Your task to perform on an android device: change your default location settings in chrome Image 0: 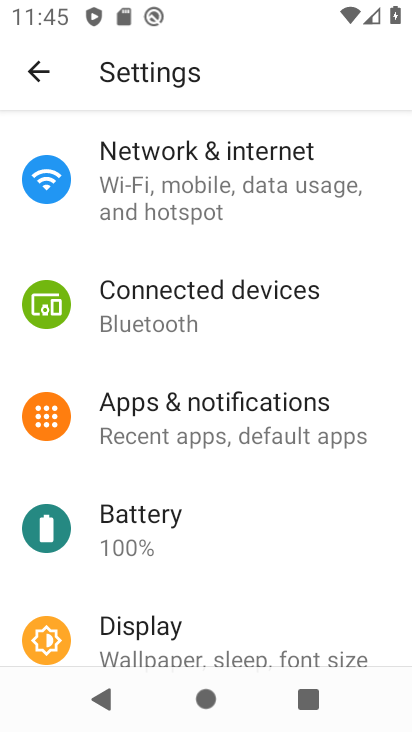
Step 0: press home button
Your task to perform on an android device: change your default location settings in chrome Image 1: 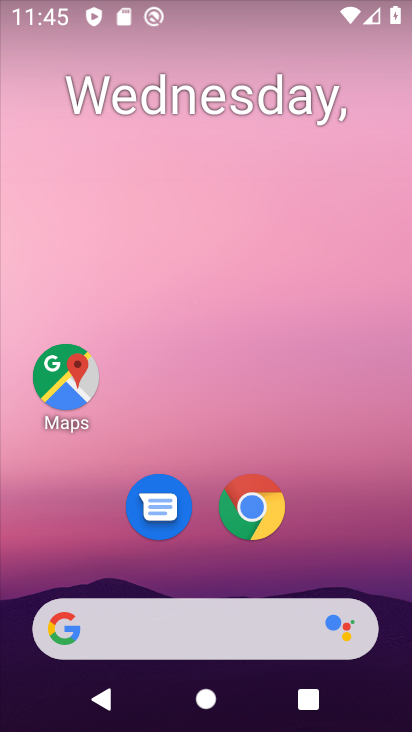
Step 1: click (271, 527)
Your task to perform on an android device: change your default location settings in chrome Image 2: 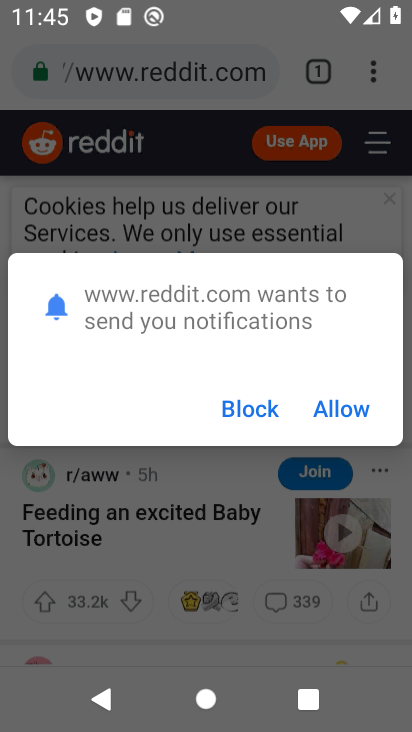
Step 2: click (375, 75)
Your task to perform on an android device: change your default location settings in chrome Image 3: 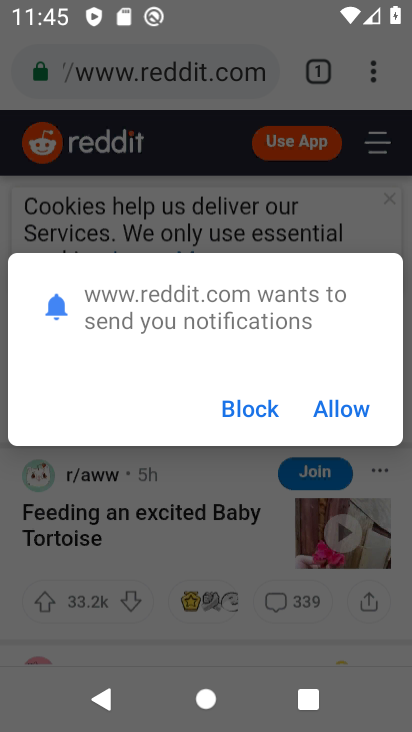
Step 3: click (257, 414)
Your task to perform on an android device: change your default location settings in chrome Image 4: 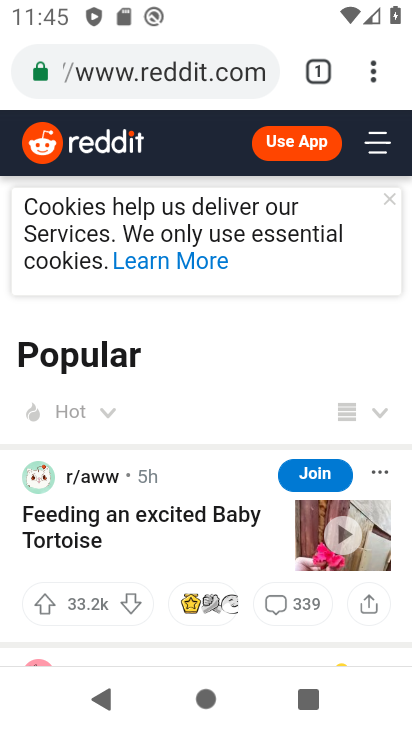
Step 4: click (372, 69)
Your task to perform on an android device: change your default location settings in chrome Image 5: 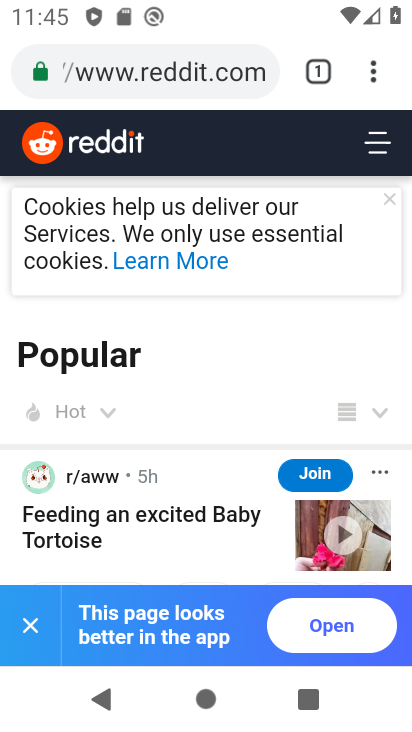
Step 5: click (369, 65)
Your task to perform on an android device: change your default location settings in chrome Image 6: 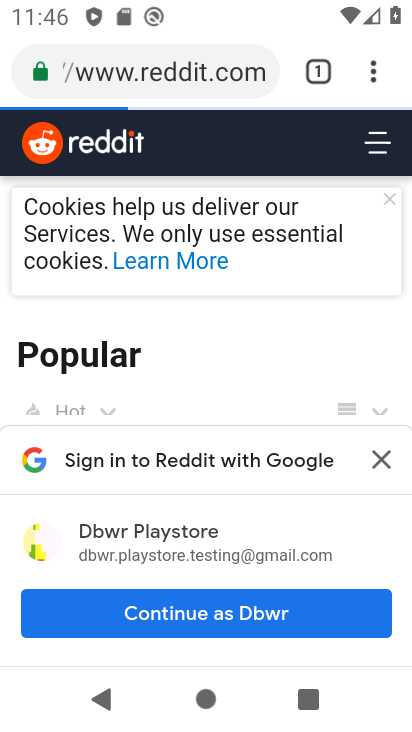
Step 6: click (379, 73)
Your task to perform on an android device: change your default location settings in chrome Image 7: 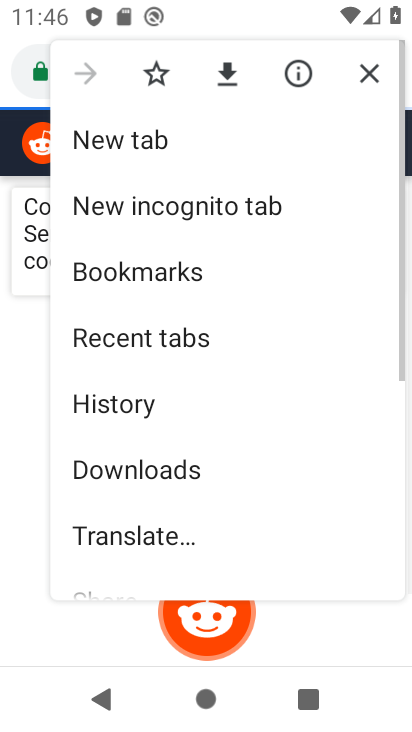
Step 7: drag from (220, 395) to (274, 139)
Your task to perform on an android device: change your default location settings in chrome Image 8: 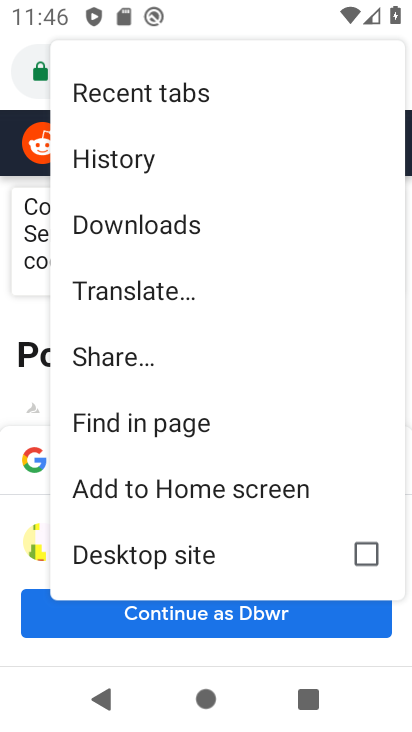
Step 8: drag from (228, 463) to (253, 250)
Your task to perform on an android device: change your default location settings in chrome Image 9: 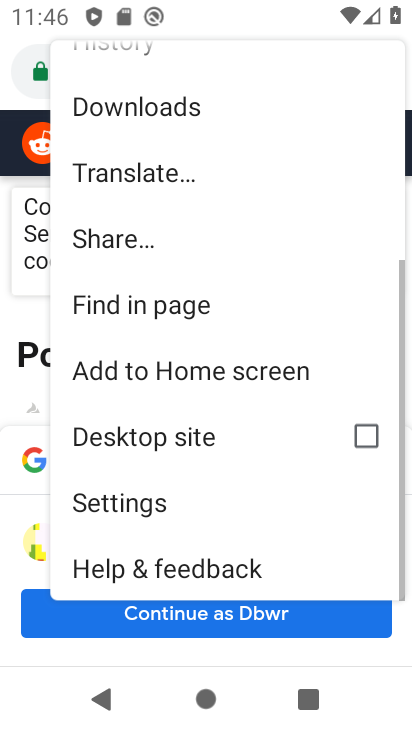
Step 9: click (174, 498)
Your task to perform on an android device: change your default location settings in chrome Image 10: 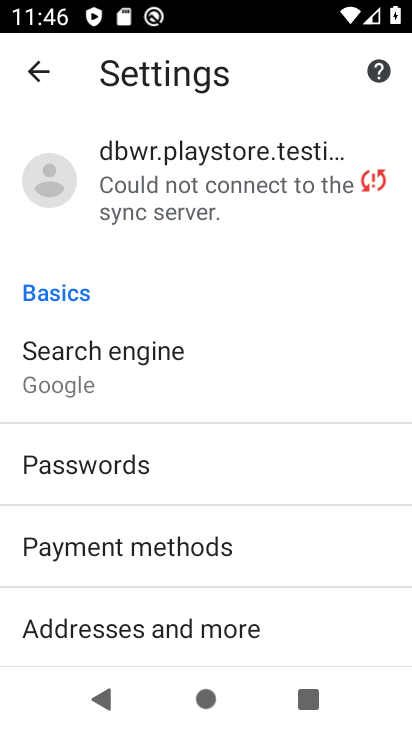
Step 10: drag from (174, 498) to (233, 162)
Your task to perform on an android device: change your default location settings in chrome Image 11: 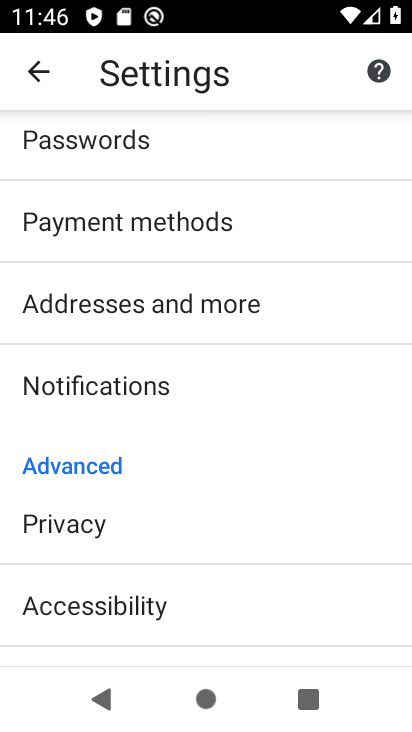
Step 11: drag from (187, 544) to (210, 283)
Your task to perform on an android device: change your default location settings in chrome Image 12: 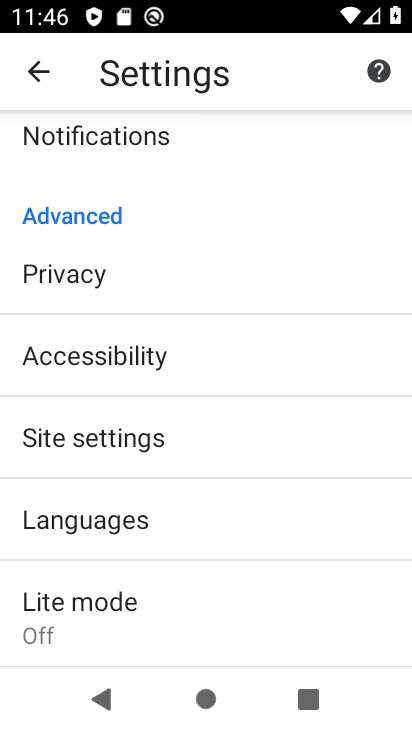
Step 12: click (138, 438)
Your task to perform on an android device: change your default location settings in chrome Image 13: 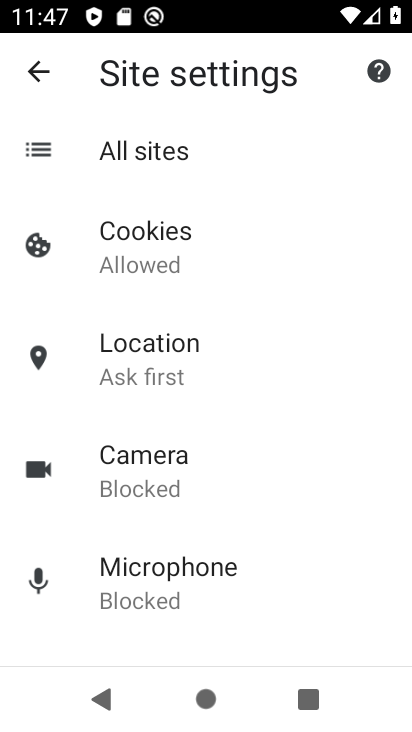
Step 13: click (222, 375)
Your task to perform on an android device: change your default location settings in chrome Image 14: 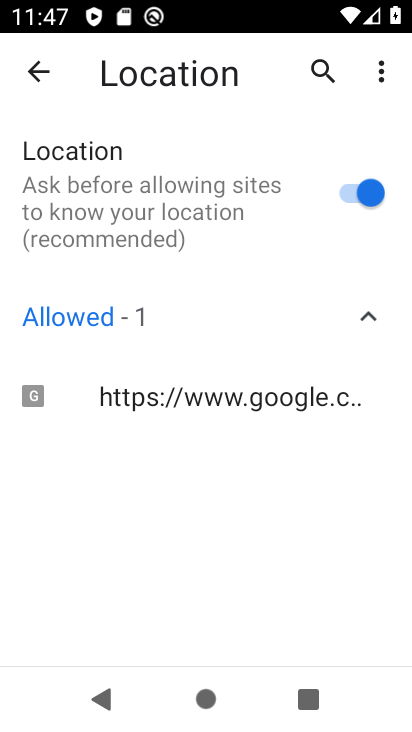
Step 14: click (357, 199)
Your task to perform on an android device: change your default location settings in chrome Image 15: 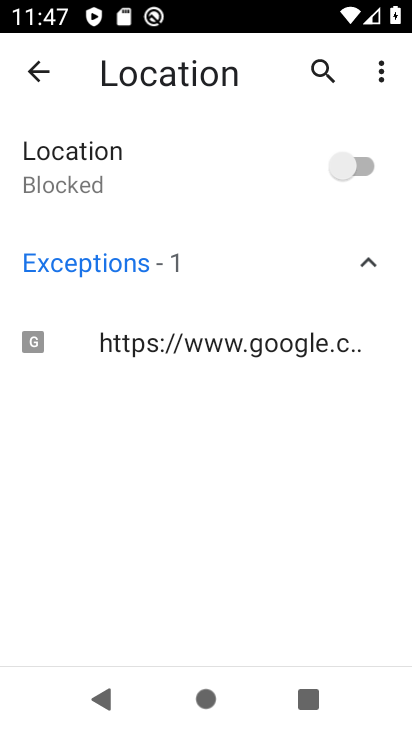
Step 15: task complete